Your task to perform on an android device: turn on priority inbox in the gmail app Image 0: 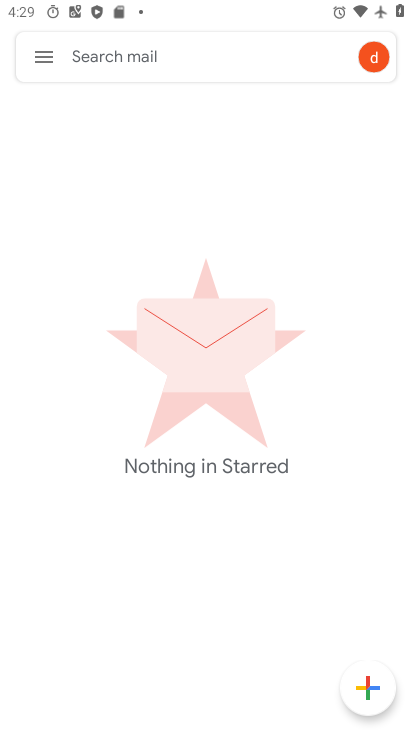
Step 0: press back button
Your task to perform on an android device: turn on priority inbox in the gmail app Image 1: 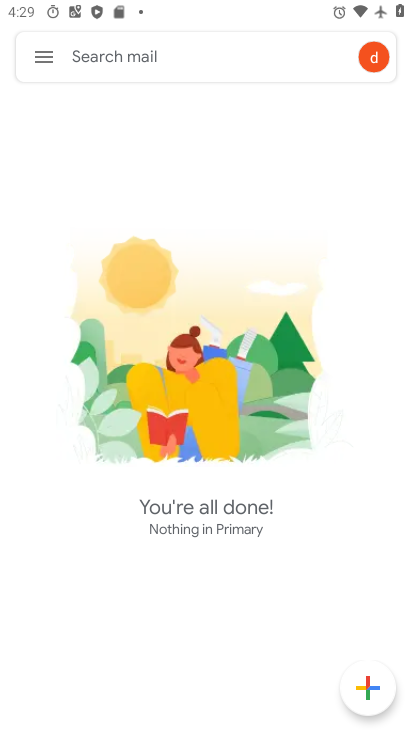
Step 1: click (41, 50)
Your task to perform on an android device: turn on priority inbox in the gmail app Image 2: 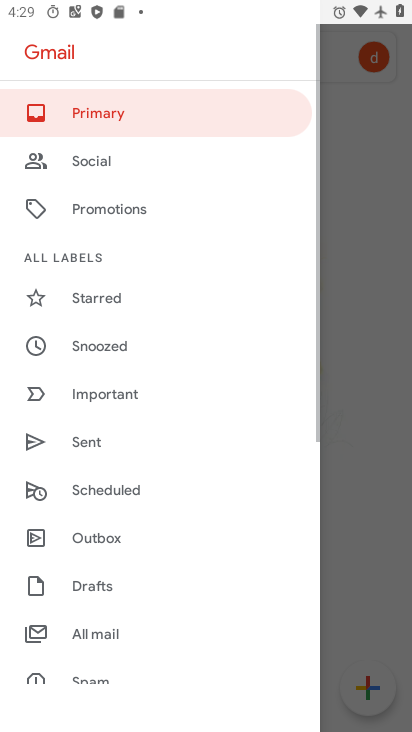
Step 2: drag from (121, 630) to (159, 129)
Your task to perform on an android device: turn on priority inbox in the gmail app Image 3: 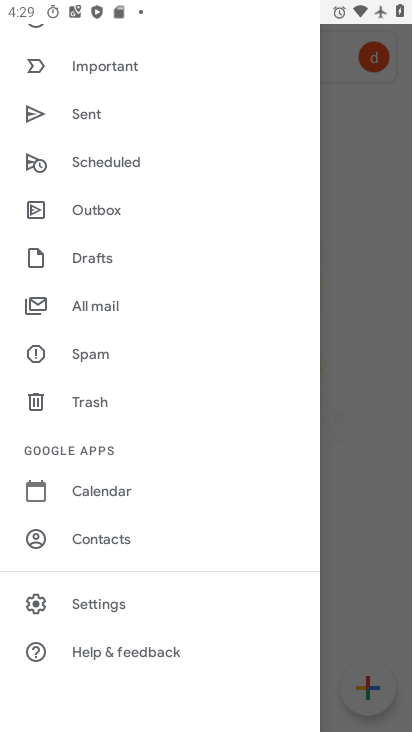
Step 3: click (78, 600)
Your task to perform on an android device: turn on priority inbox in the gmail app Image 4: 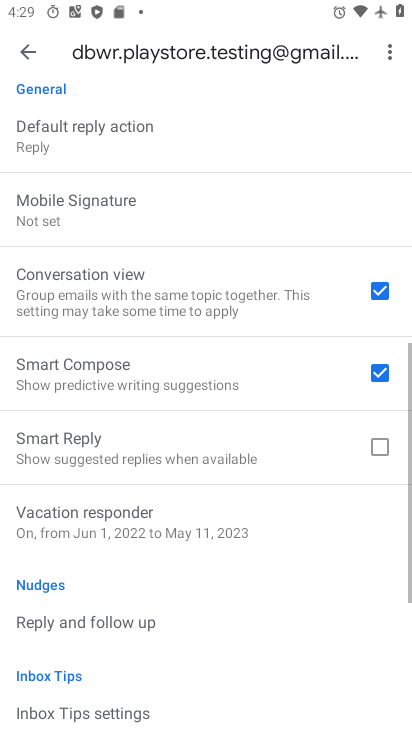
Step 4: drag from (211, 189) to (212, 665)
Your task to perform on an android device: turn on priority inbox in the gmail app Image 5: 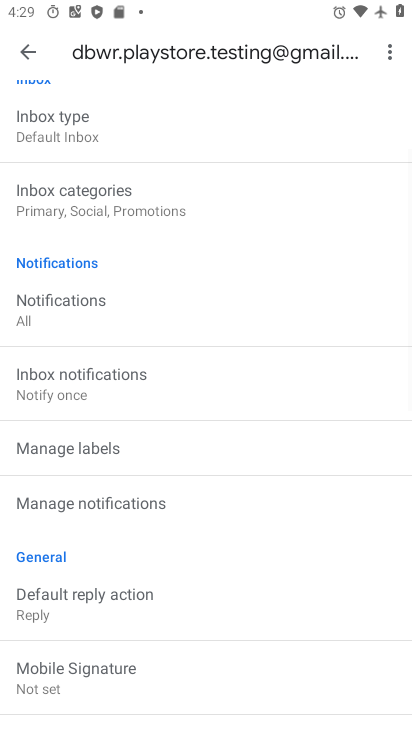
Step 5: drag from (205, 249) to (197, 651)
Your task to perform on an android device: turn on priority inbox in the gmail app Image 6: 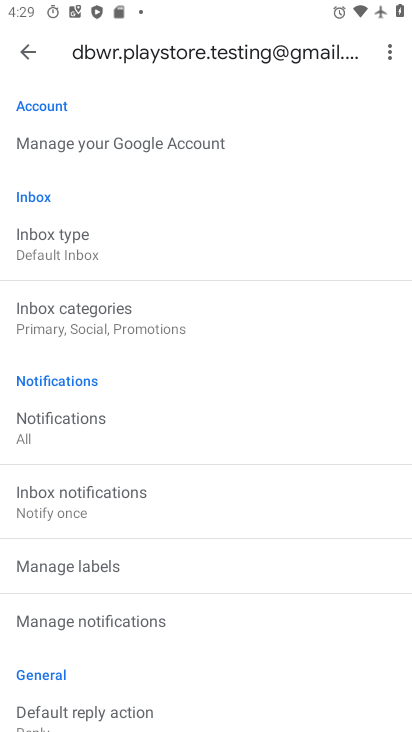
Step 6: drag from (198, 604) to (245, 278)
Your task to perform on an android device: turn on priority inbox in the gmail app Image 7: 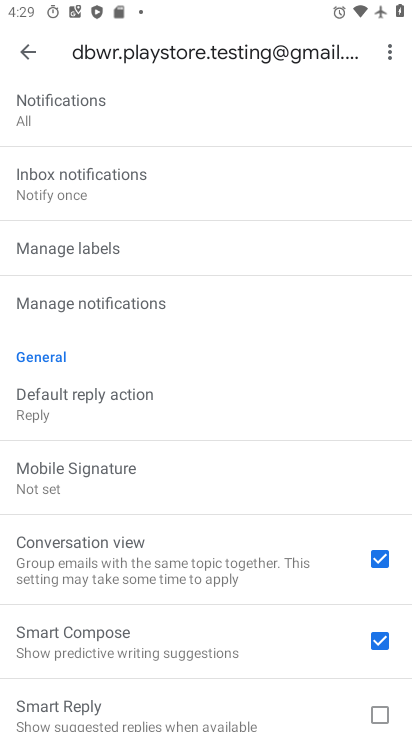
Step 7: click (169, 310)
Your task to perform on an android device: turn on priority inbox in the gmail app Image 8: 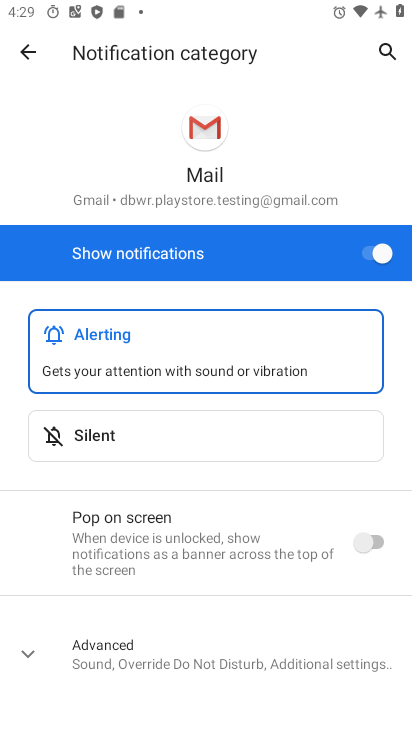
Step 8: click (34, 51)
Your task to perform on an android device: turn on priority inbox in the gmail app Image 9: 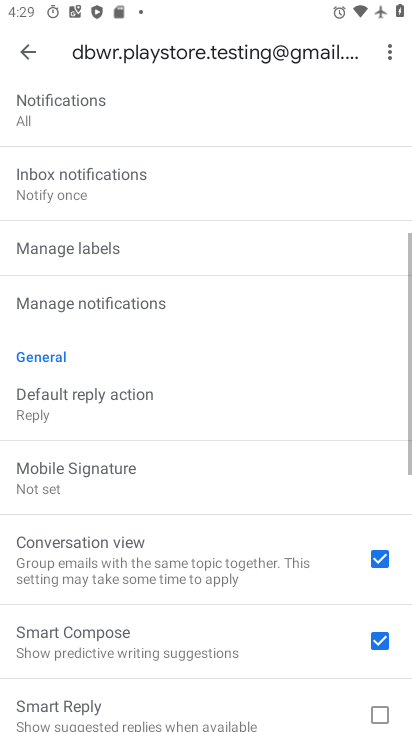
Step 9: drag from (215, 146) to (233, 554)
Your task to perform on an android device: turn on priority inbox in the gmail app Image 10: 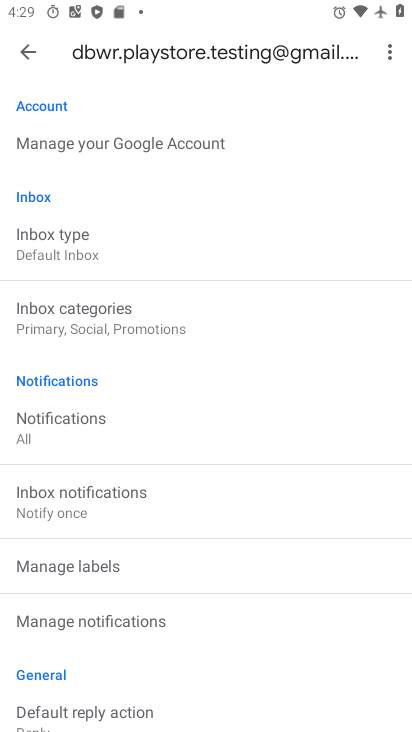
Step 10: click (98, 250)
Your task to perform on an android device: turn on priority inbox in the gmail app Image 11: 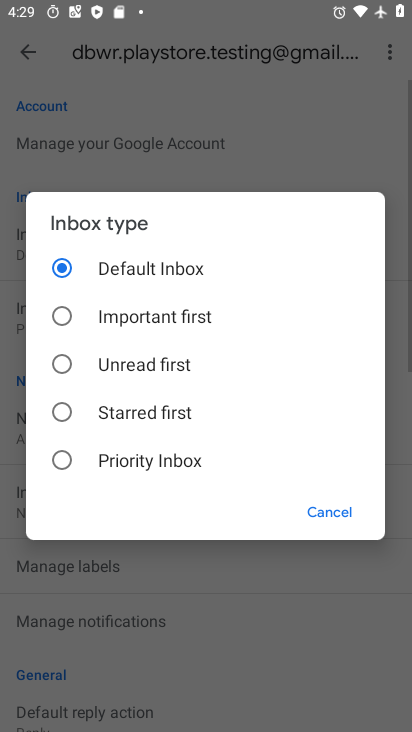
Step 11: click (129, 470)
Your task to perform on an android device: turn on priority inbox in the gmail app Image 12: 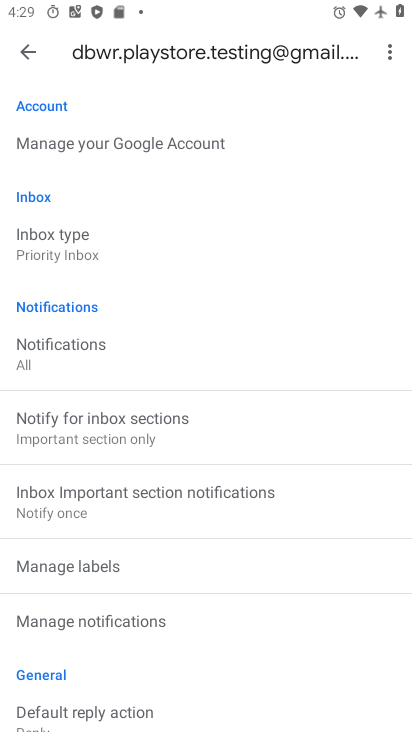
Step 12: task complete